Your task to perform on an android device: Go to privacy settings Image 0: 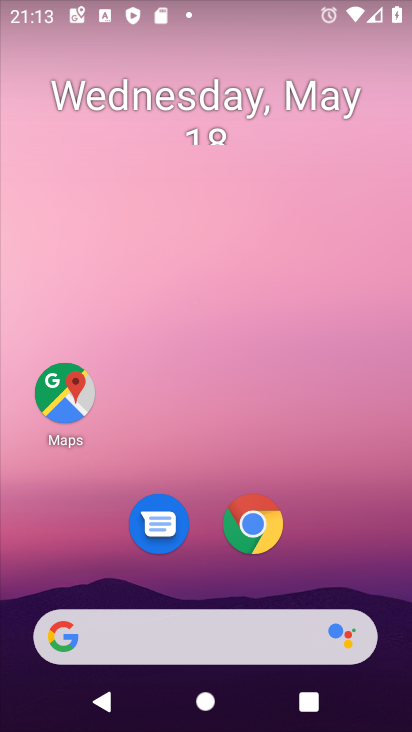
Step 0: drag from (235, 419) to (212, 15)
Your task to perform on an android device: Go to privacy settings Image 1: 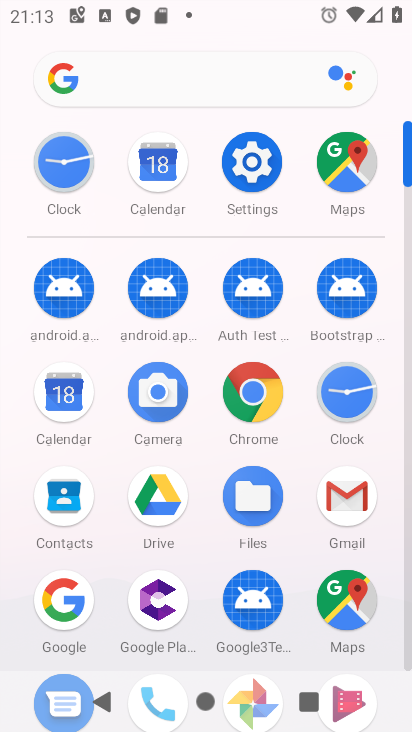
Step 1: click (247, 162)
Your task to perform on an android device: Go to privacy settings Image 2: 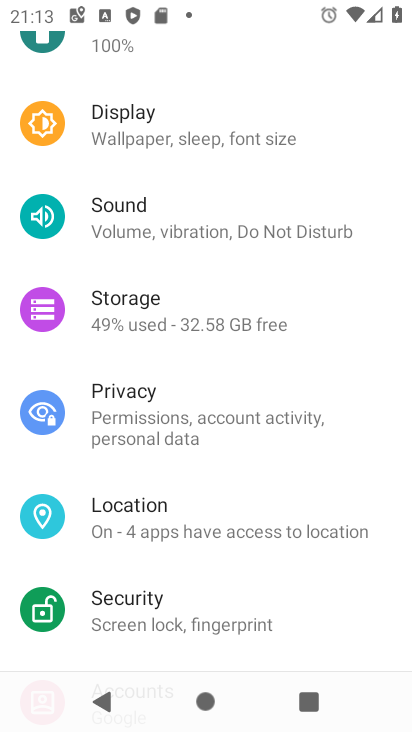
Step 2: drag from (241, 466) to (232, 147)
Your task to perform on an android device: Go to privacy settings Image 3: 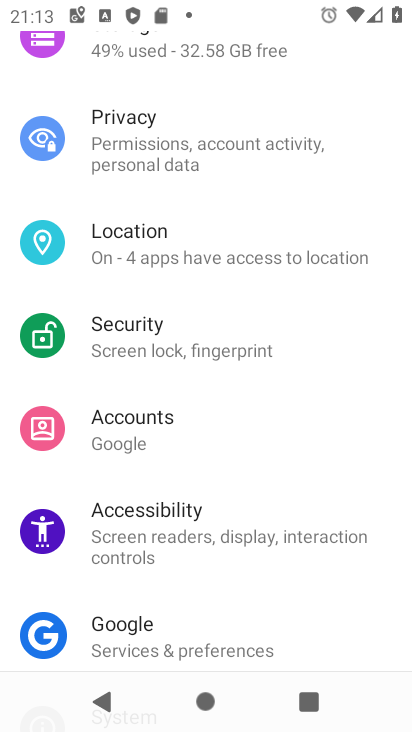
Step 3: drag from (234, 432) to (274, 519)
Your task to perform on an android device: Go to privacy settings Image 4: 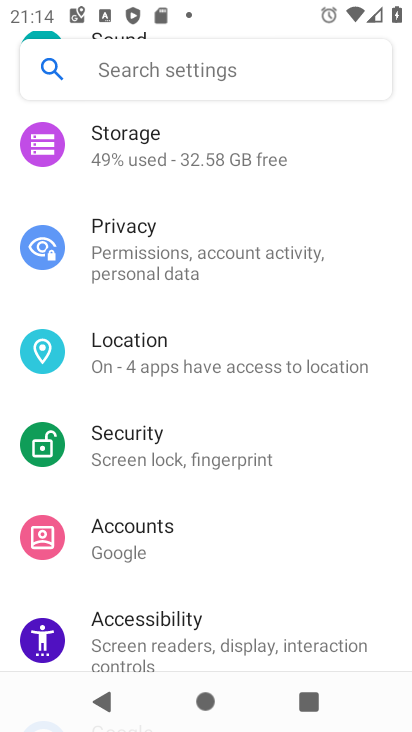
Step 4: click (188, 239)
Your task to perform on an android device: Go to privacy settings Image 5: 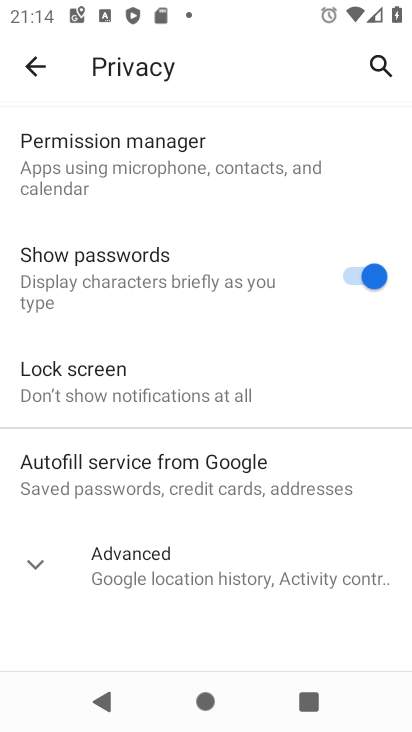
Step 5: task complete